Your task to perform on an android device: open app "Speedtest by Ookla" Image 0: 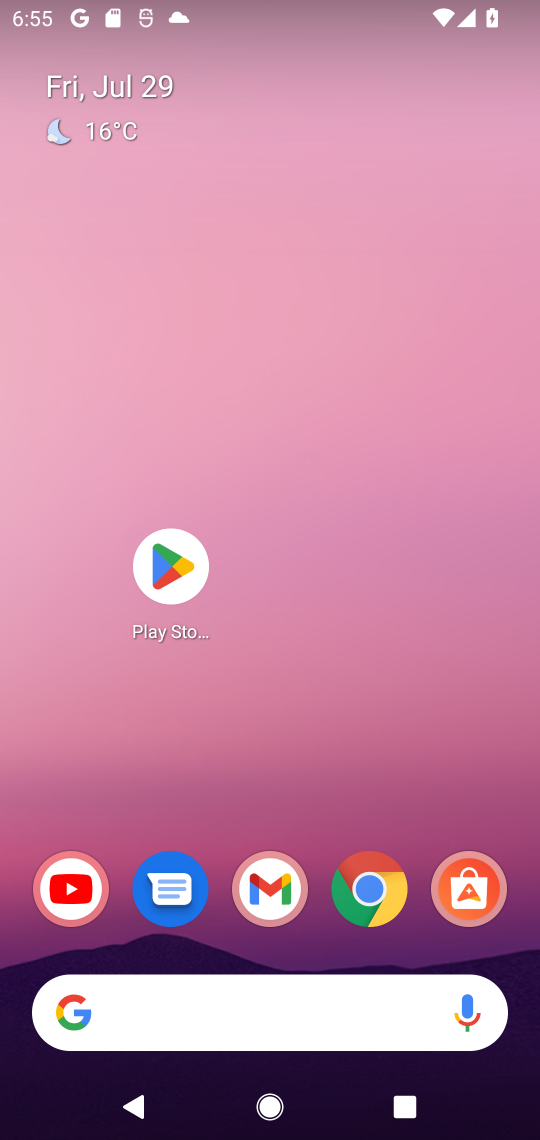
Step 0: press home button
Your task to perform on an android device: open app "Speedtest by Ookla" Image 1: 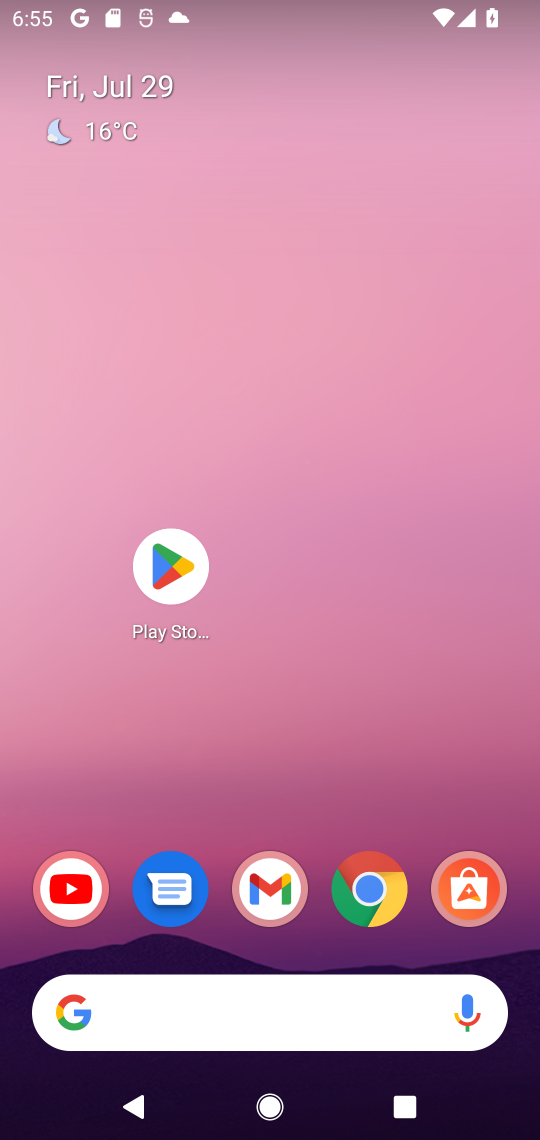
Step 1: click (175, 561)
Your task to perform on an android device: open app "Speedtest by Ookla" Image 2: 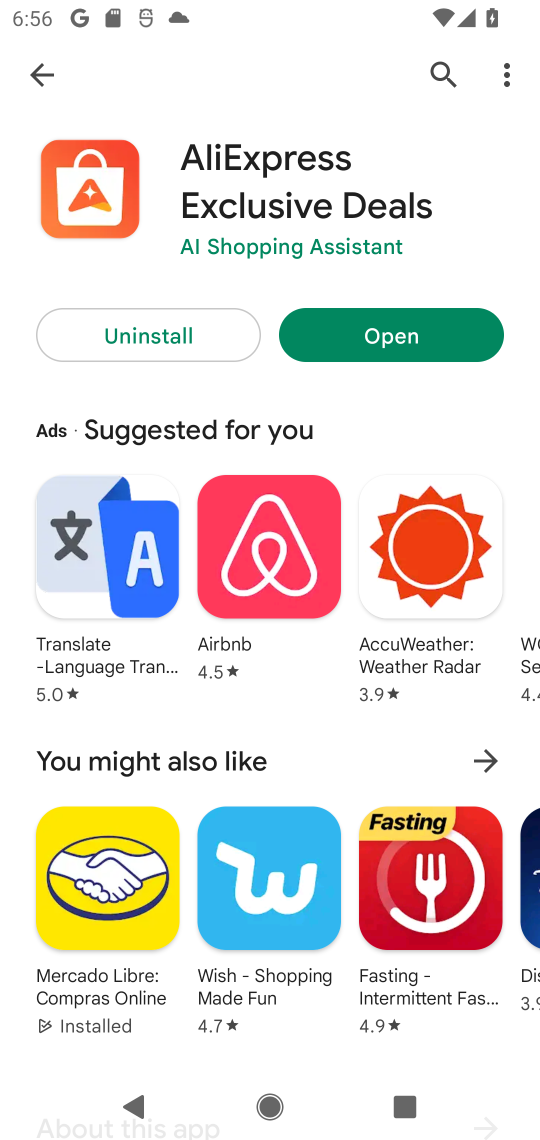
Step 2: click (435, 67)
Your task to perform on an android device: open app "Speedtest by Ookla" Image 3: 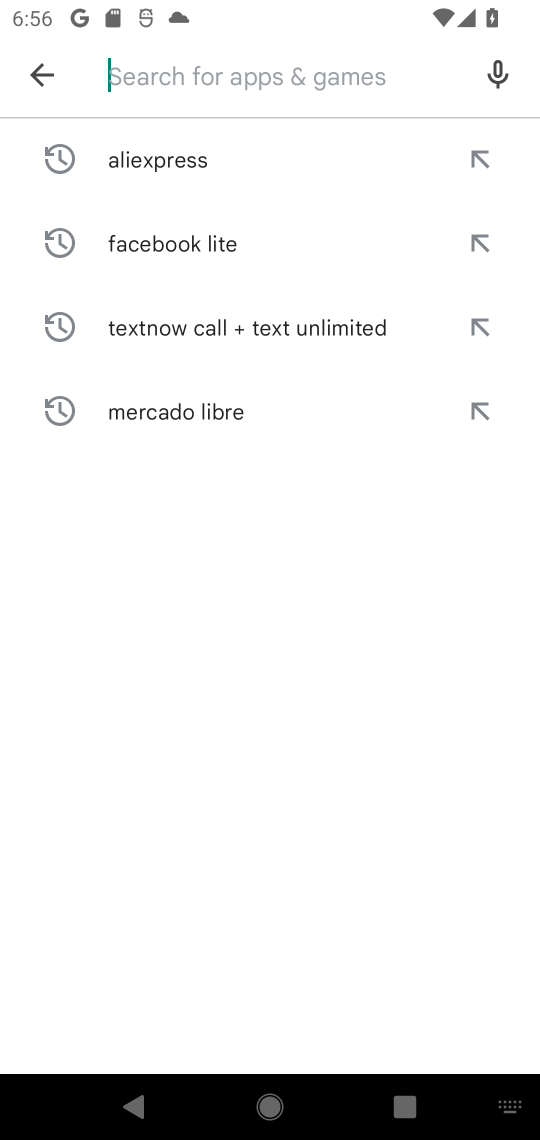
Step 3: type "Speedtest by Ookla"
Your task to perform on an android device: open app "Speedtest by Ookla" Image 4: 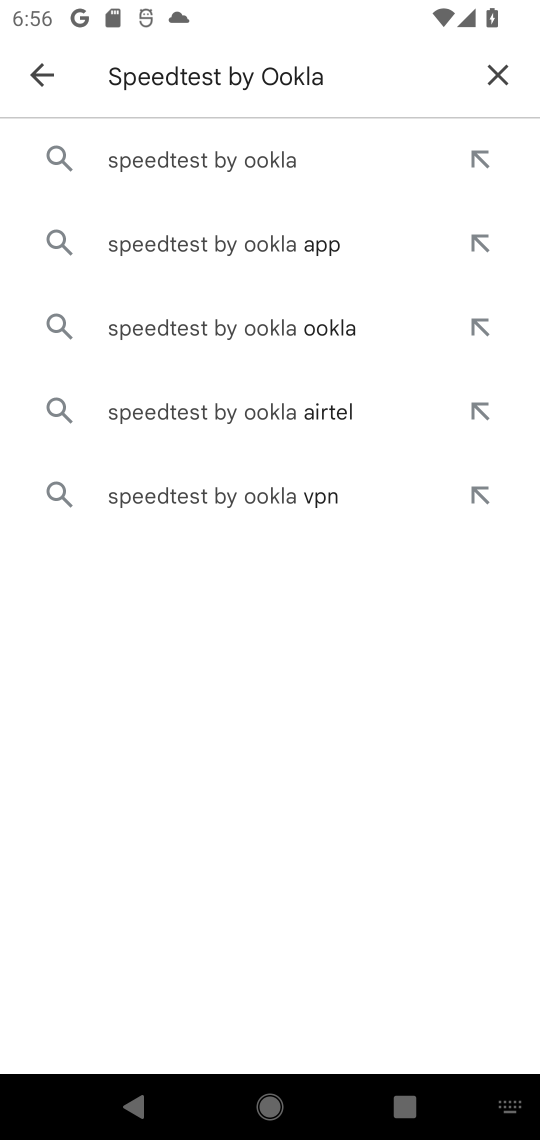
Step 4: click (285, 154)
Your task to perform on an android device: open app "Speedtest by Ookla" Image 5: 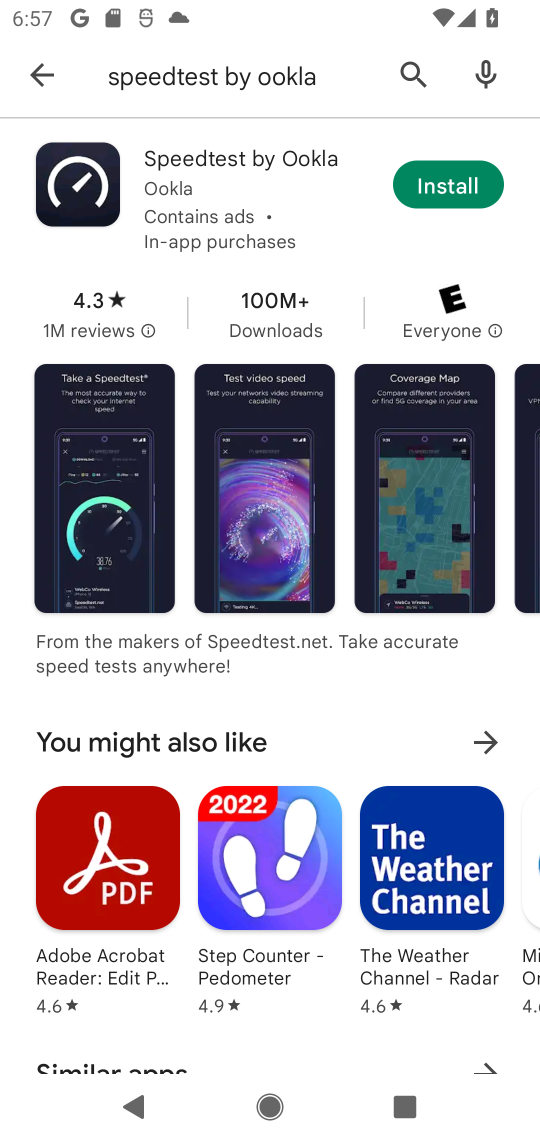
Step 5: task complete